Your task to perform on an android device: check storage Image 0: 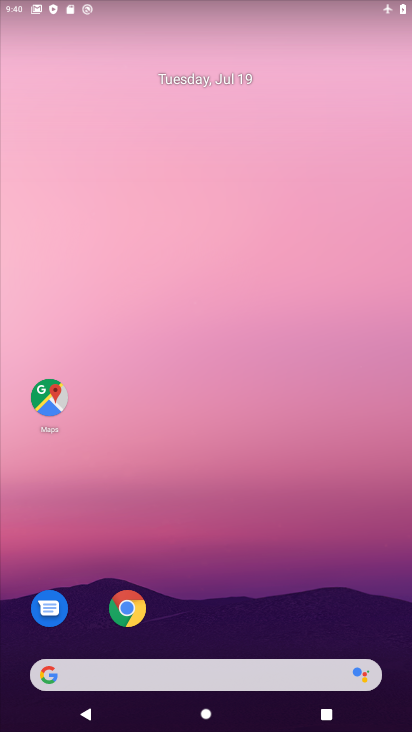
Step 0: drag from (300, 615) to (253, 153)
Your task to perform on an android device: check storage Image 1: 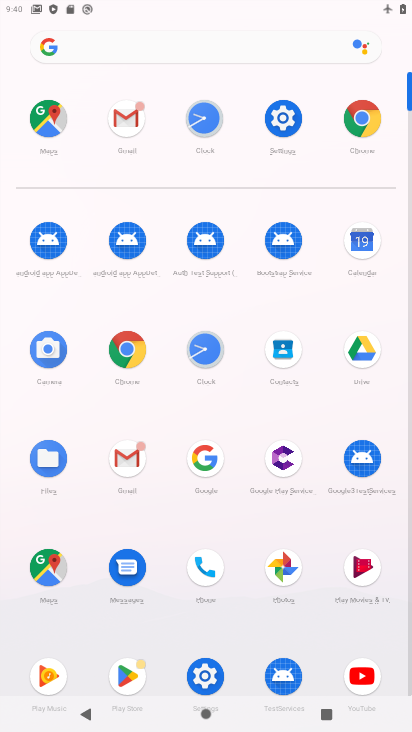
Step 1: click (289, 112)
Your task to perform on an android device: check storage Image 2: 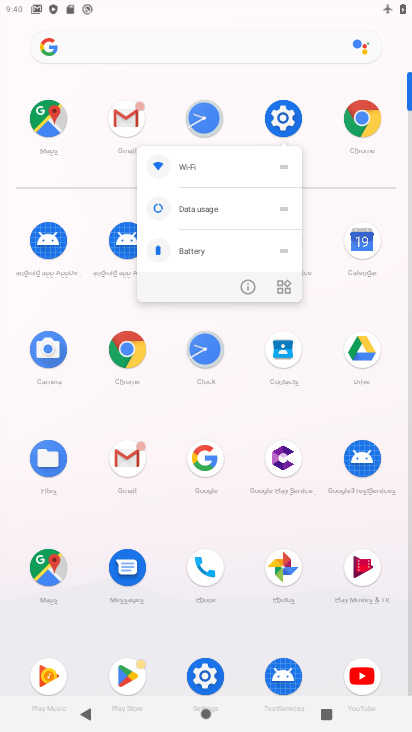
Step 2: click (289, 112)
Your task to perform on an android device: check storage Image 3: 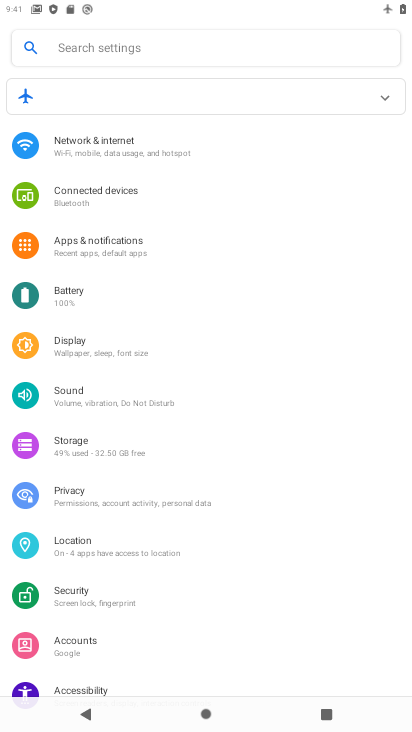
Step 3: click (77, 443)
Your task to perform on an android device: check storage Image 4: 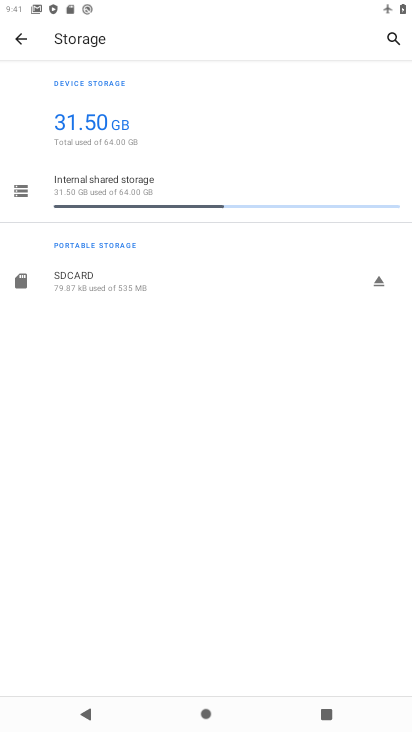
Step 4: task complete